Your task to perform on an android device: open app "Move to iOS" (install if not already installed) Image 0: 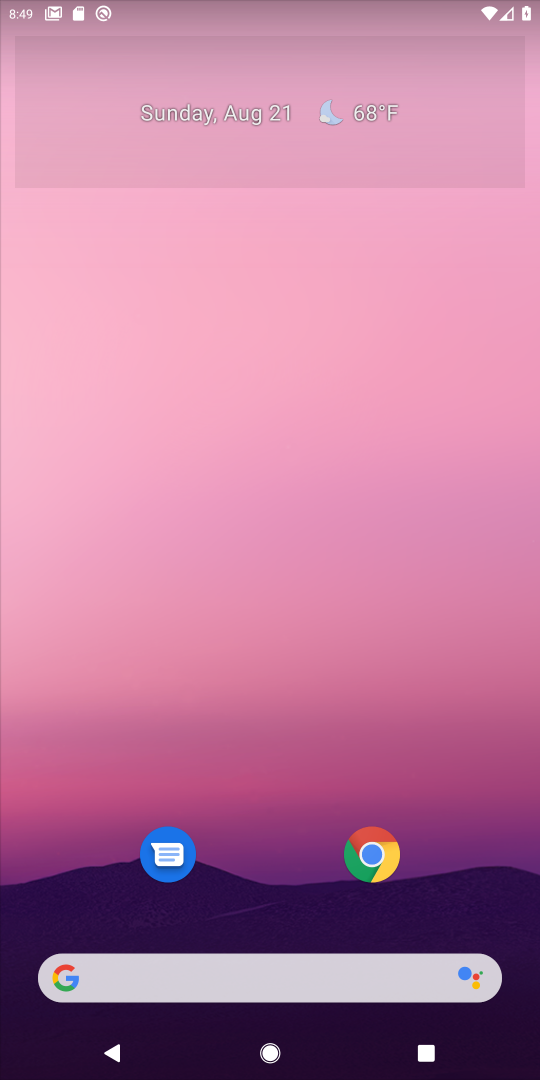
Step 0: click (278, 14)
Your task to perform on an android device: open app "Move to iOS" (install if not already installed) Image 1: 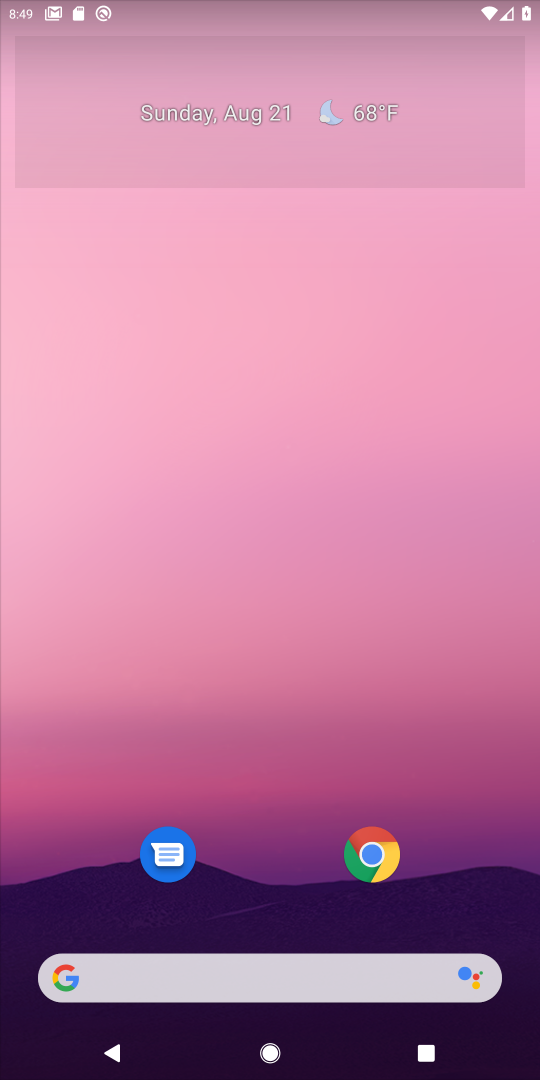
Step 1: drag from (284, 591) to (250, 72)
Your task to perform on an android device: open app "Move to iOS" (install if not already installed) Image 2: 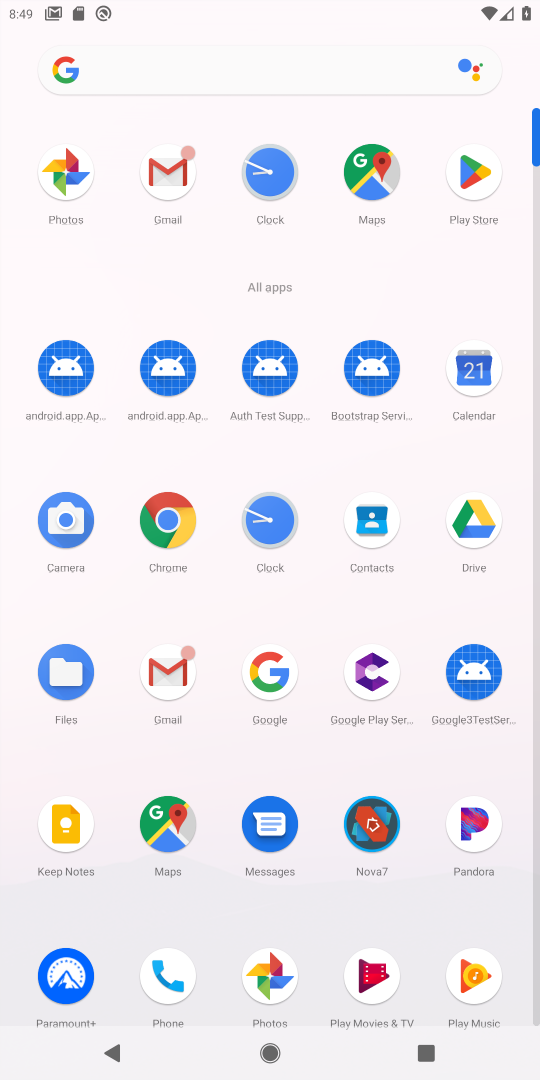
Step 2: click (461, 192)
Your task to perform on an android device: open app "Move to iOS" (install if not already installed) Image 3: 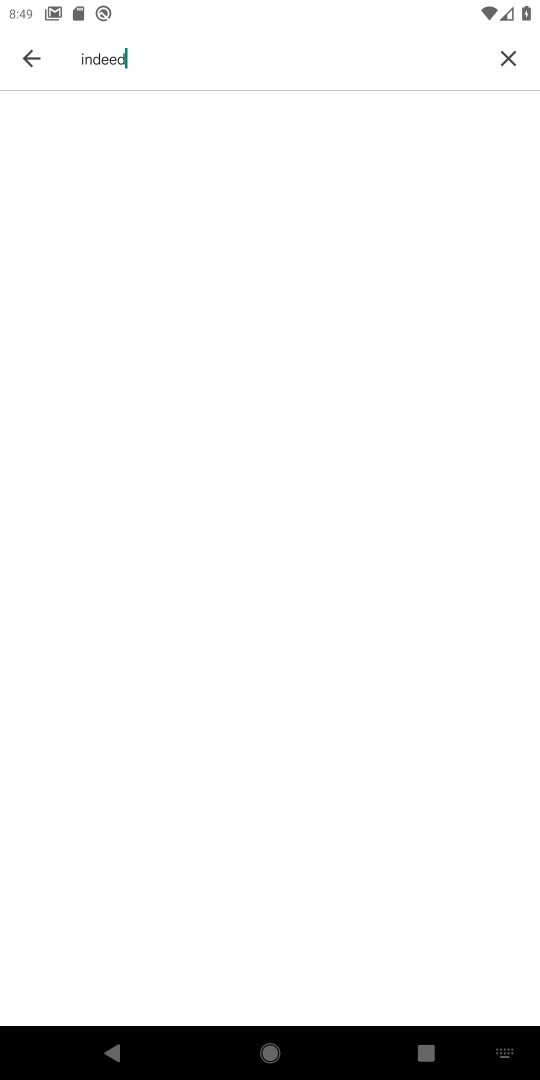
Step 3: click (498, 63)
Your task to perform on an android device: open app "Move to iOS" (install if not already installed) Image 4: 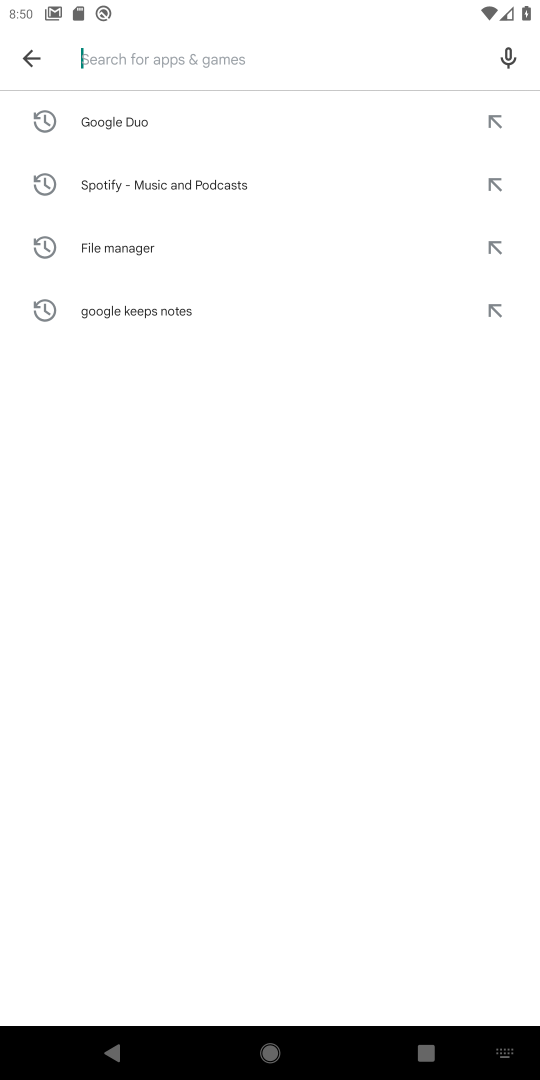
Step 4: type "move iso"
Your task to perform on an android device: open app "Move to iOS" (install if not already installed) Image 5: 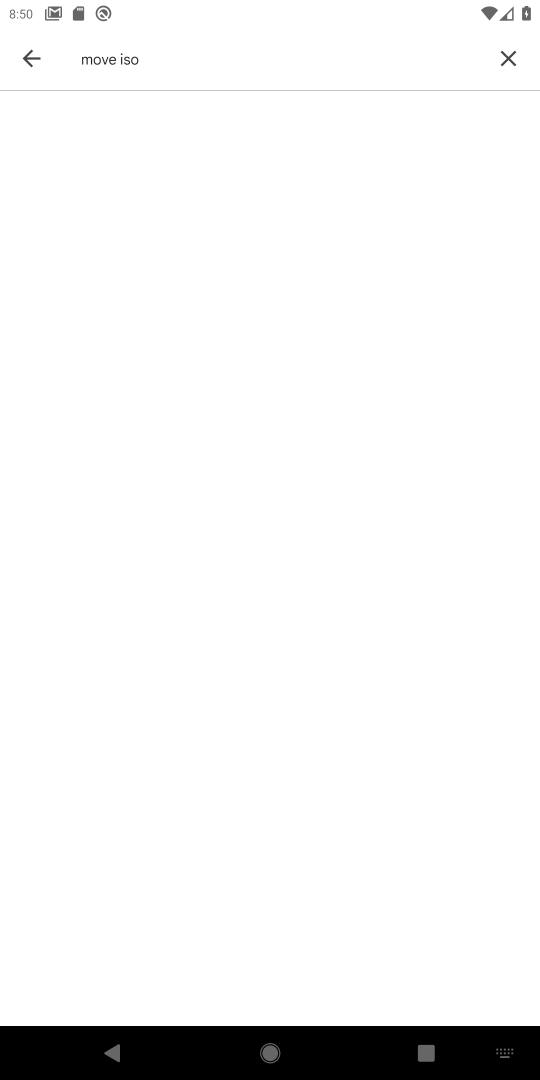
Step 5: task complete